Your task to perform on an android device: empty trash in google photos Image 0: 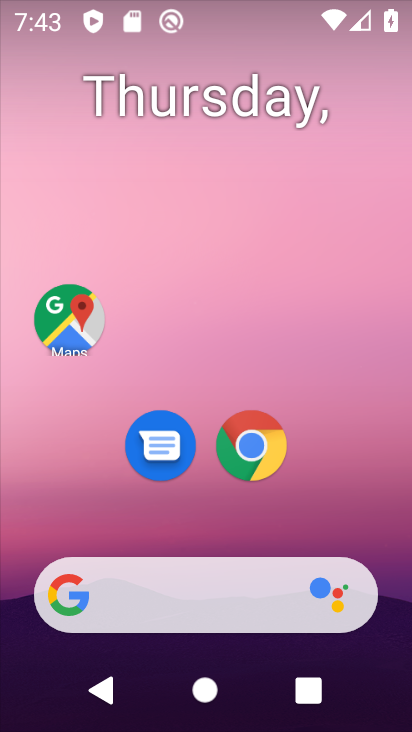
Step 0: drag from (359, 506) to (297, 35)
Your task to perform on an android device: empty trash in google photos Image 1: 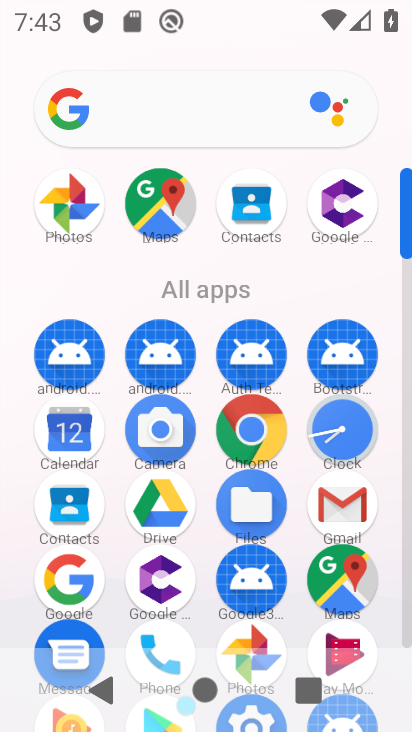
Step 1: click (64, 196)
Your task to perform on an android device: empty trash in google photos Image 2: 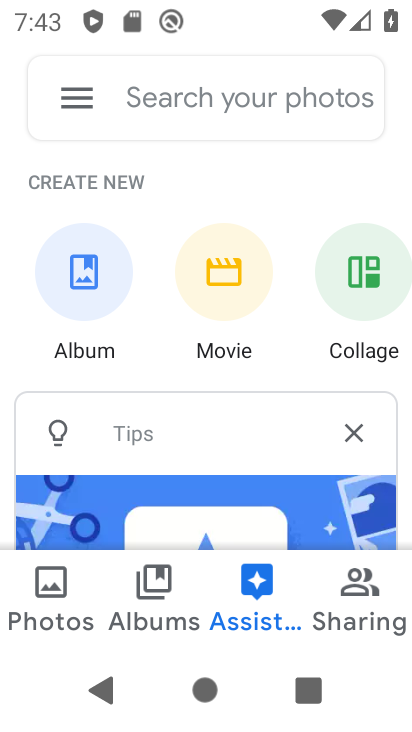
Step 2: click (67, 101)
Your task to perform on an android device: empty trash in google photos Image 3: 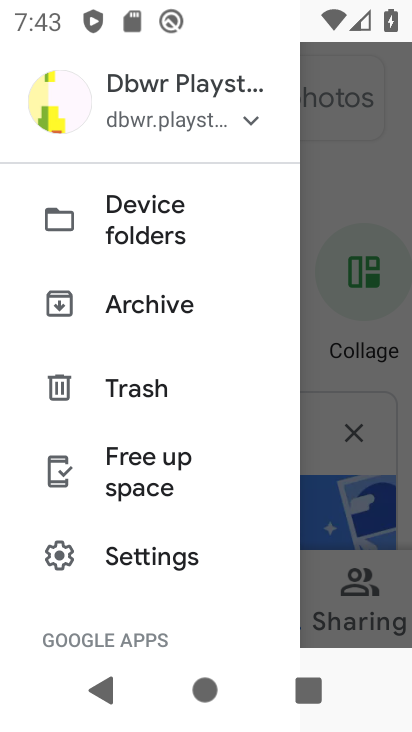
Step 3: click (147, 396)
Your task to perform on an android device: empty trash in google photos Image 4: 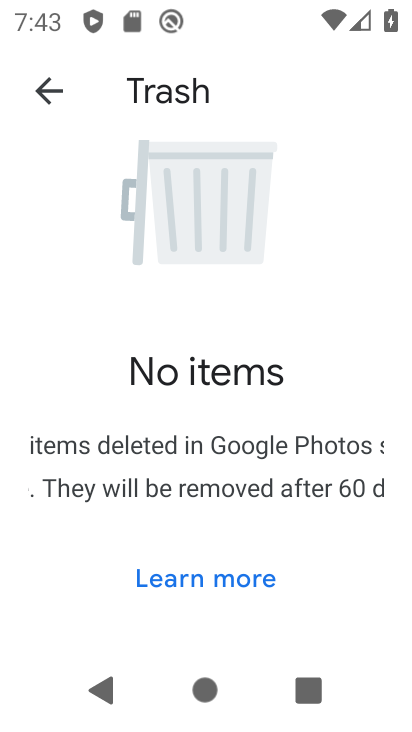
Step 4: task complete